Your task to perform on an android device: turn on showing notifications on the lock screen Image 0: 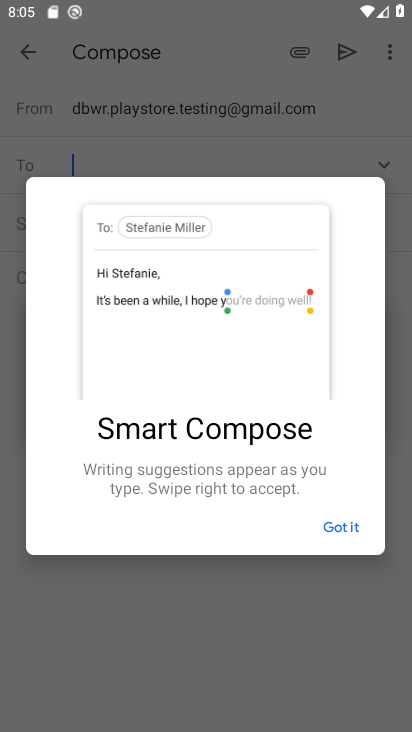
Step 0: press home button
Your task to perform on an android device: turn on showing notifications on the lock screen Image 1: 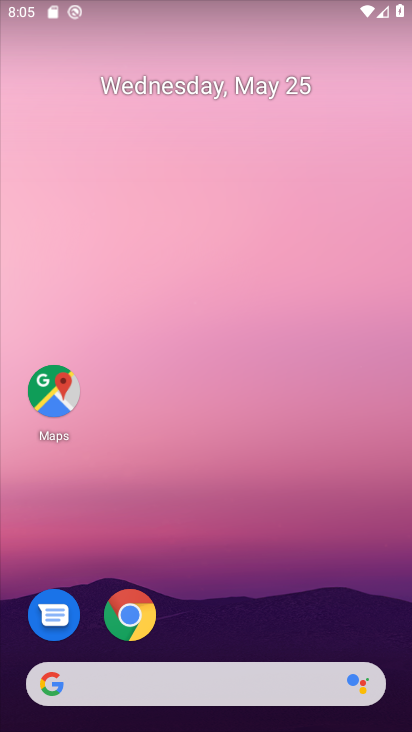
Step 1: drag from (218, 579) to (170, 4)
Your task to perform on an android device: turn on showing notifications on the lock screen Image 2: 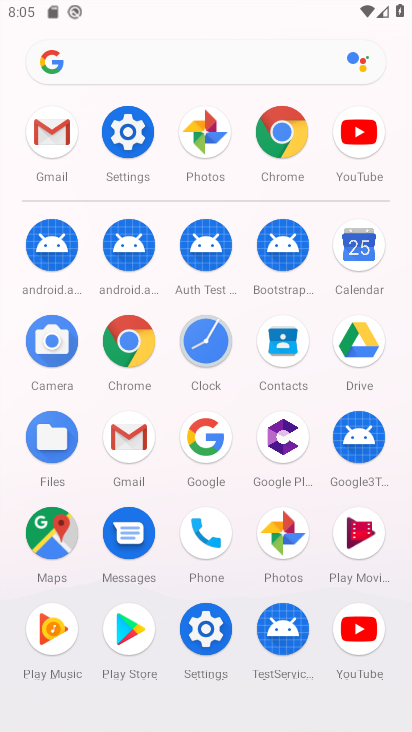
Step 2: drag from (11, 561) to (24, 266)
Your task to perform on an android device: turn on showing notifications on the lock screen Image 3: 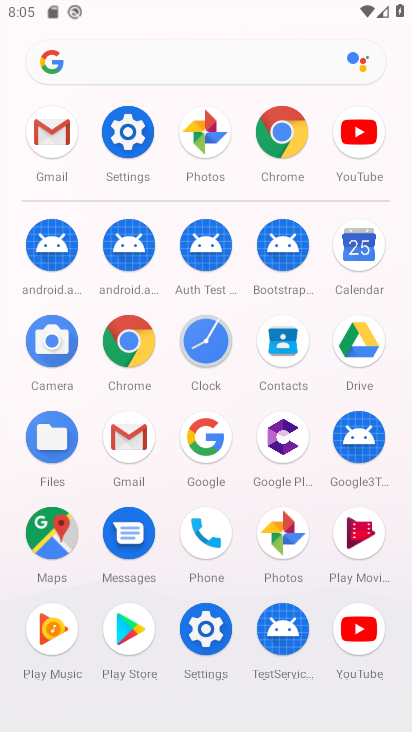
Step 3: click (208, 626)
Your task to perform on an android device: turn on showing notifications on the lock screen Image 4: 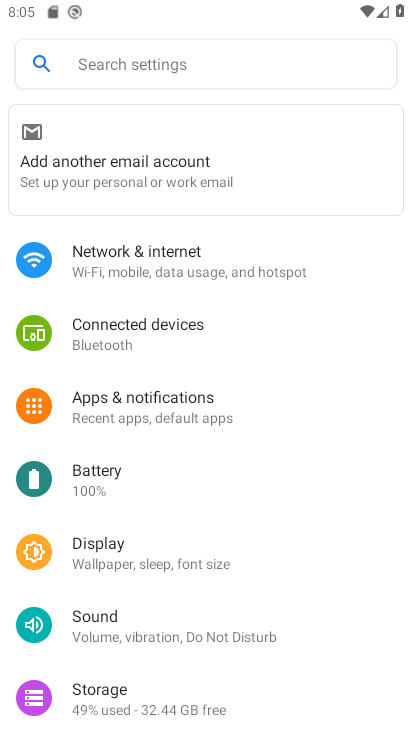
Step 4: drag from (307, 627) to (307, 360)
Your task to perform on an android device: turn on showing notifications on the lock screen Image 5: 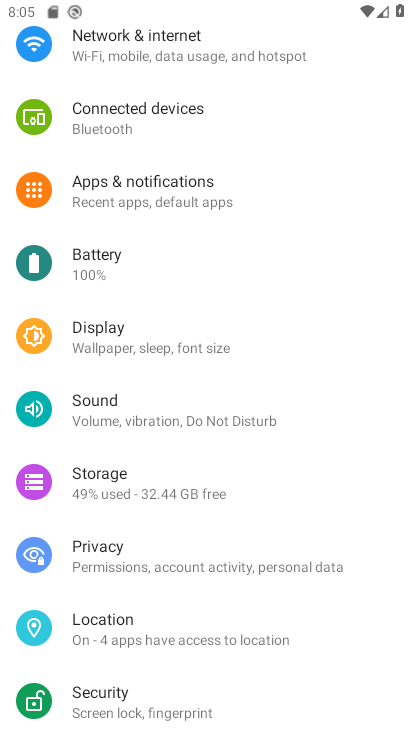
Step 5: click (181, 170)
Your task to perform on an android device: turn on showing notifications on the lock screen Image 6: 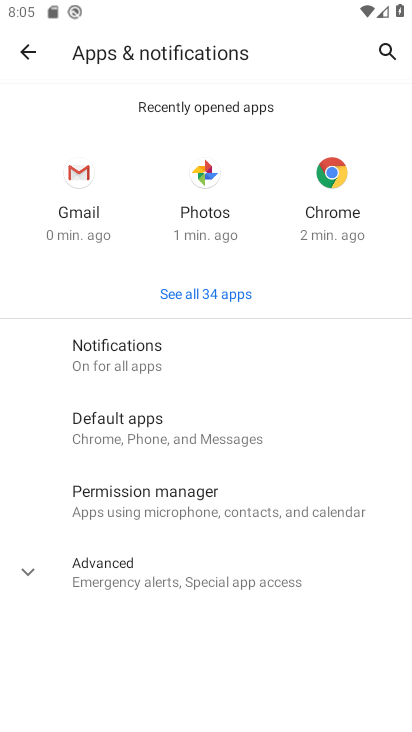
Step 6: click (35, 576)
Your task to perform on an android device: turn on showing notifications on the lock screen Image 7: 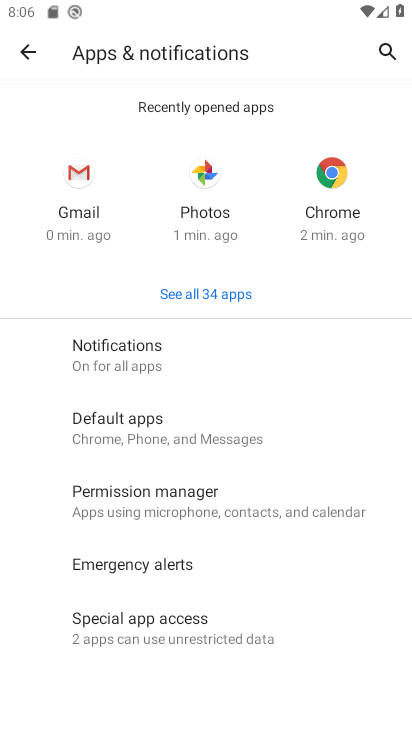
Step 7: click (158, 344)
Your task to perform on an android device: turn on showing notifications on the lock screen Image 8: 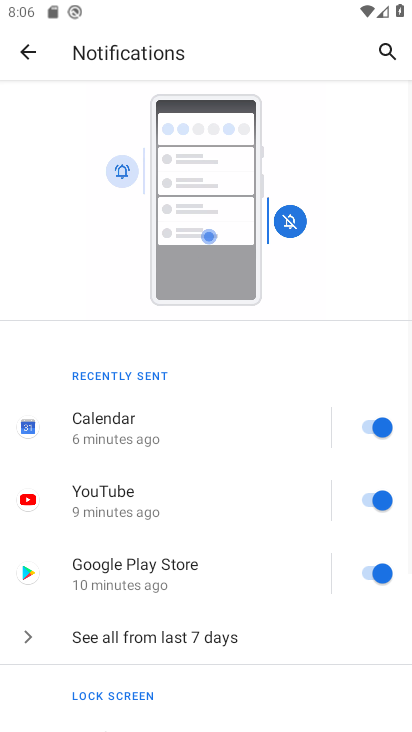
Step 8: drag from (214, 582) to (252, 89)
Your task to perform on an android device: turn on showing notifications on the lock screen Image 9: 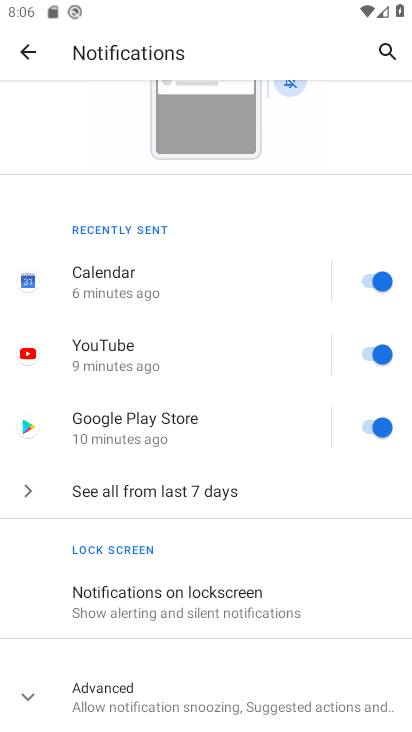
Step 9: click (215, 603)
Your task to perform on an android device: turn on showing notifications on the lock screen Image 10: 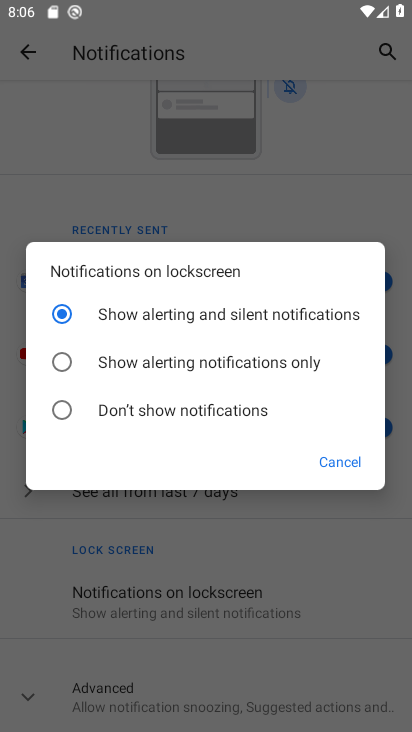
Step 10: click (177, 310)
Your task to perform on an android device: turn on showing notifications on the lock screen Image 11: 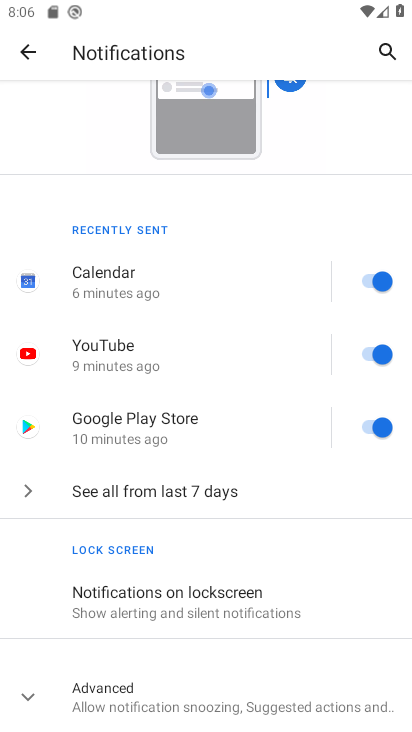
Step 11: task complete